Your task to perform on an android device: What's on my calendar tomorrow? Image 0: 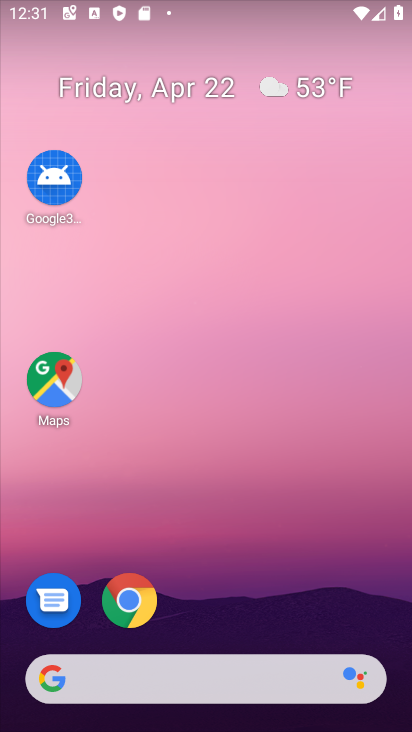
Step 0: drag from (277, 450) to (262, 8)
Your task to perform on an android device: What's on my calendar tomorrow? Image 1: 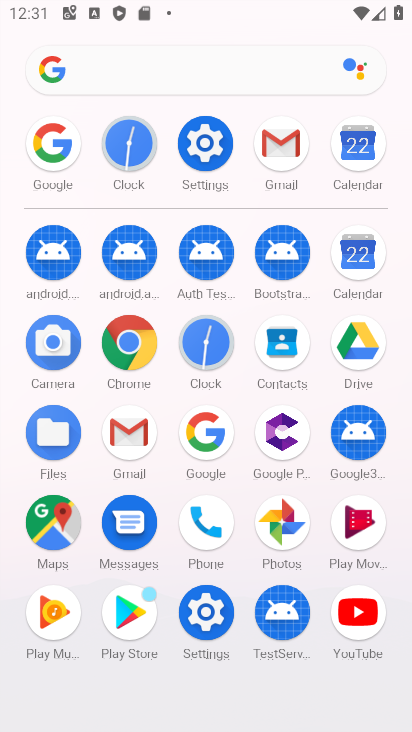
Step 1: click (352, 259)
Your task to perform on an android device: What's on my calendar tomorrow? Image 2: 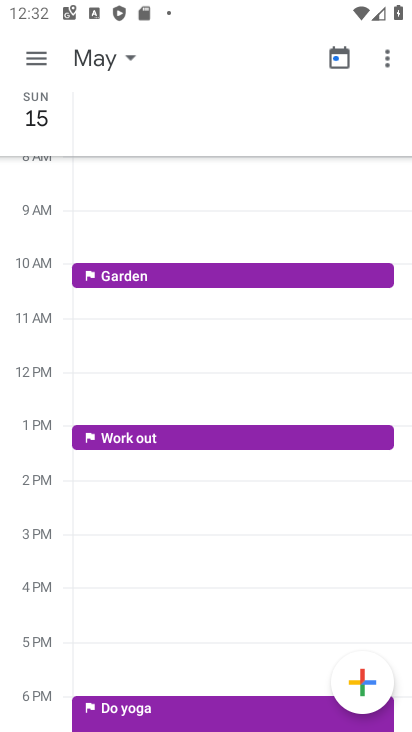
Step 2: click (123, 53)
Your task to perform on an android device: What's on my calendar tomorrow? Image 3: 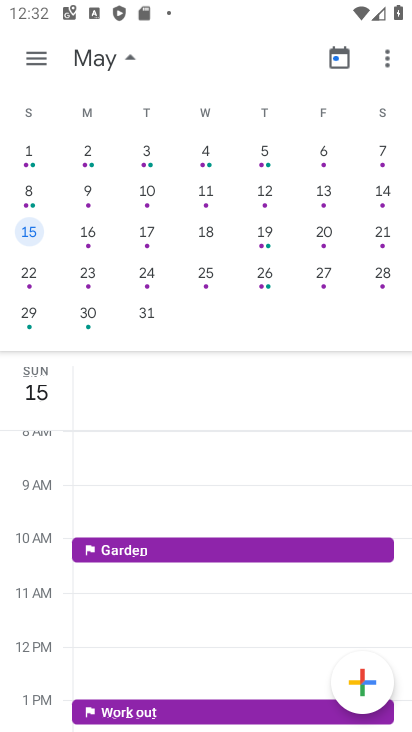
Step 3: drag from (120, 212) to (408, 270)
Your task to perform on an android device: What's on my calendar tomorrow? Image 4: 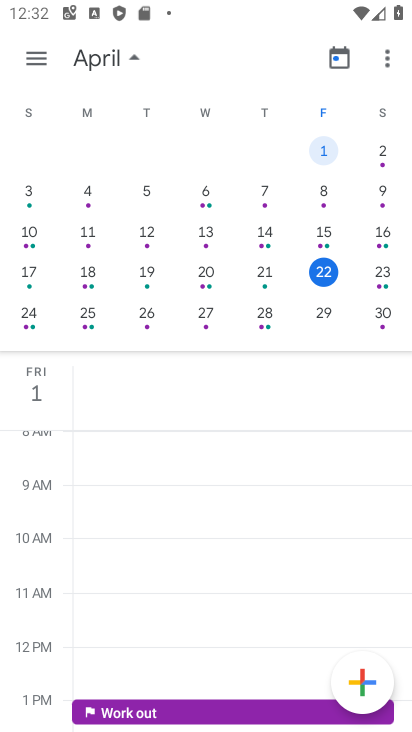
Step 4: click (381, 272)
Your task to perform on an android device: What's on my calendar tomorrow? Image 5: 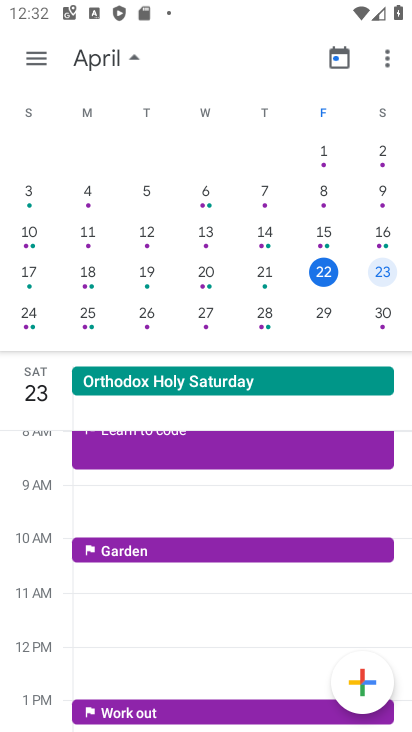
Step 5: task complete